Your task to perform on an android device: Open wifi settings Image 0: 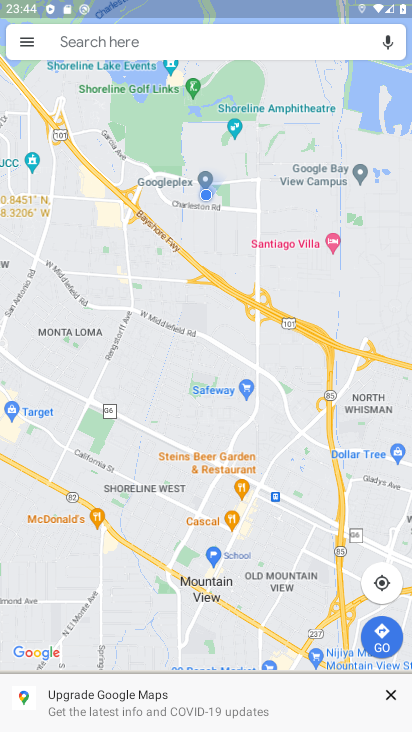
Step 0: press home button
Your task to perform on an android device: Open wifi settings Image 1: 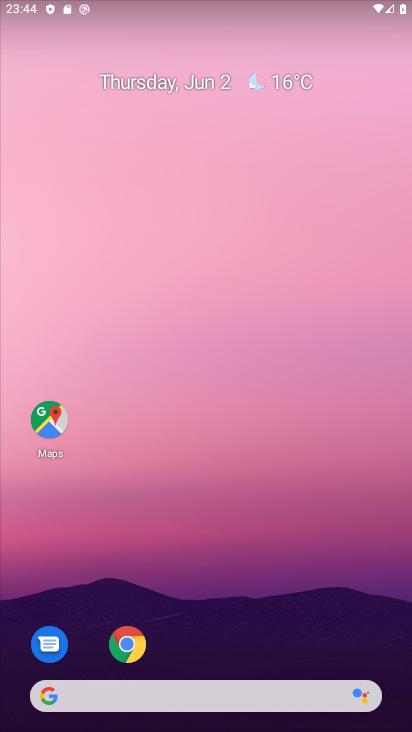
Step 1: drag from (208, 652) to (259, 322)
Your task to perform on an android device: Open wifi settings Image 2: 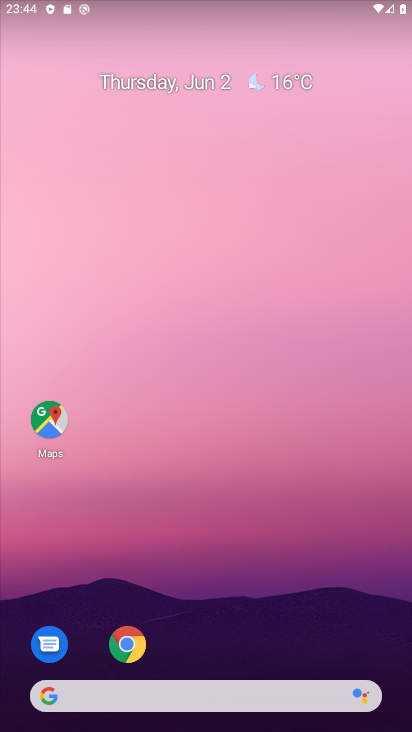
Step 2: drag from (241, 509) to (258, 198)
Your task to perform on an android device: Open wifi settings Image 3: 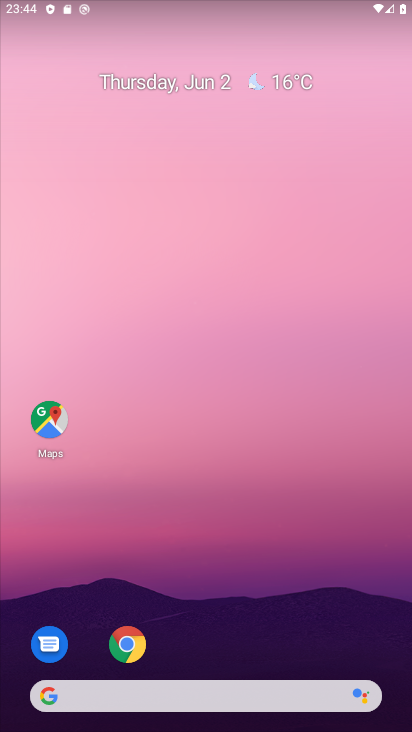
Step 3: drag from (198, 647) to (217, 179)
Your task to perform on an android device: Open wifi settings Image 4: 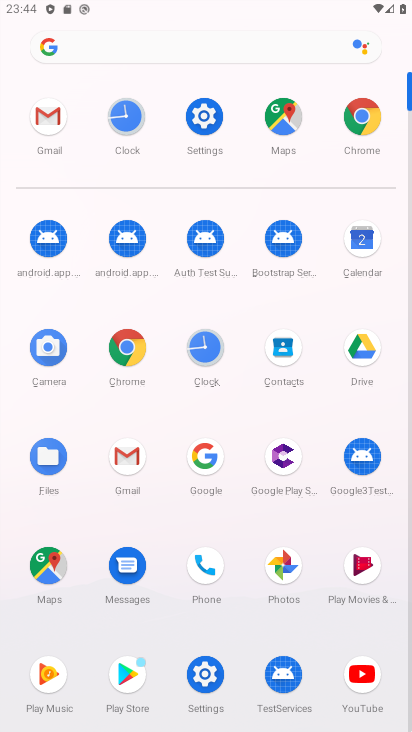
Step 4: click (217, 112)
Your task to perform on an android device: Open wifi settings Image 5: 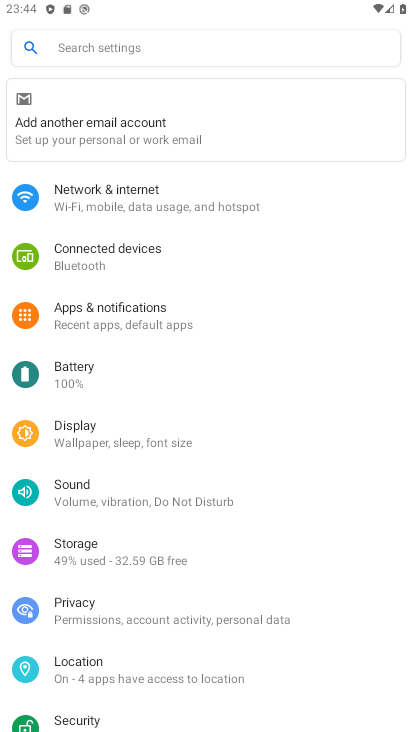
Step 5: click (154, 196)
Your task to perform on an android device: Open wifi settings Image 6: 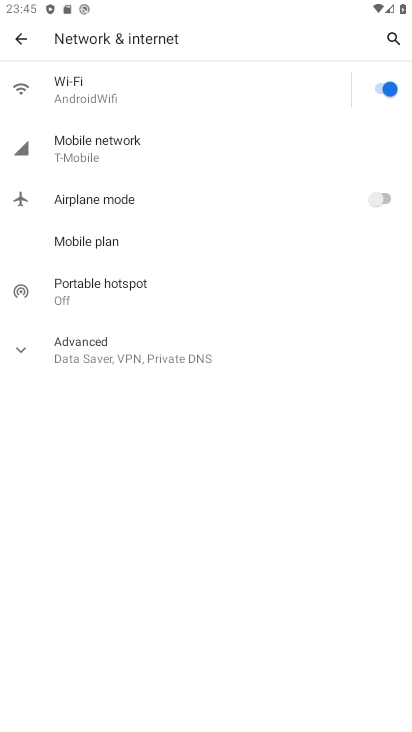
Step 6: task complete